Your task to perform on an android device: Open Google Maps and go to "Timeline" Image 0: 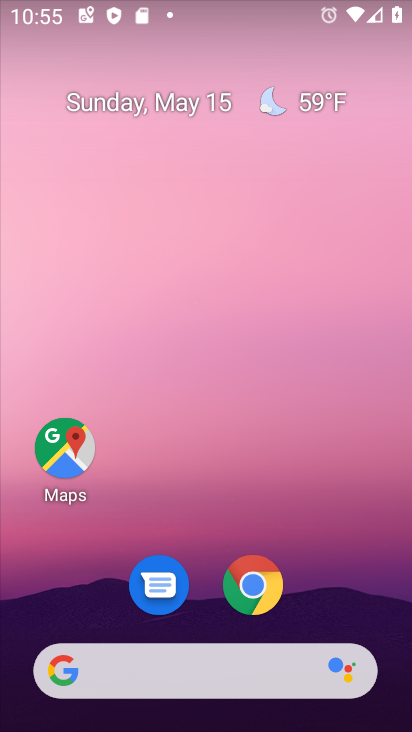
Step 0: click (69, 438)
Your task to perform on an android device: Open Google Maps and go to "Timeline" Image 1: 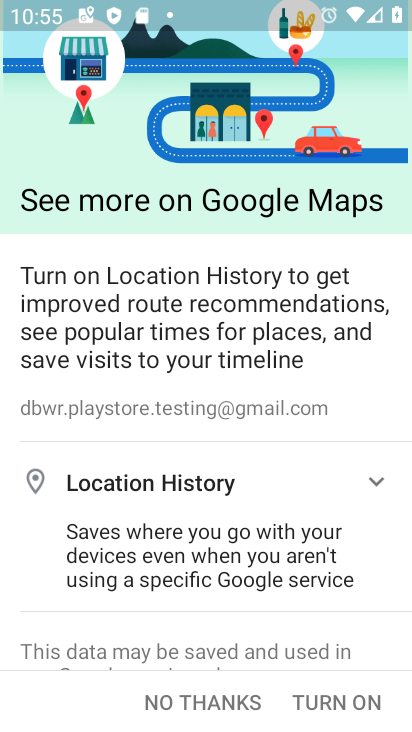
Step 1: click (304, 702)
Your task to perform on an android device: Open Google Maps and go to "Timeline" Image 2: 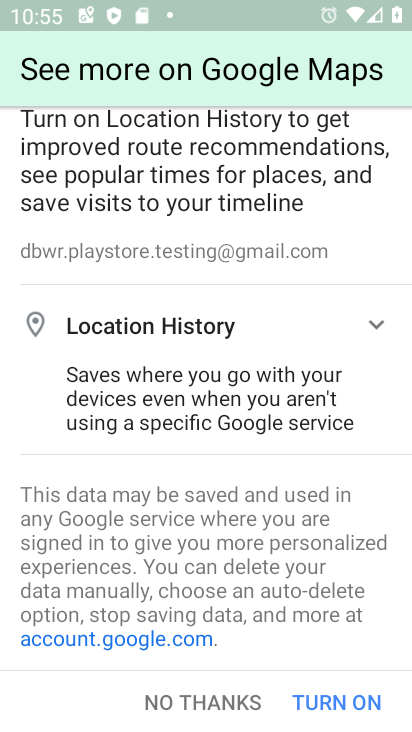
Step 2: click (304, 702)
Your task to perform on an android device: Open Google Maps and go to "Timeline" Image 3: 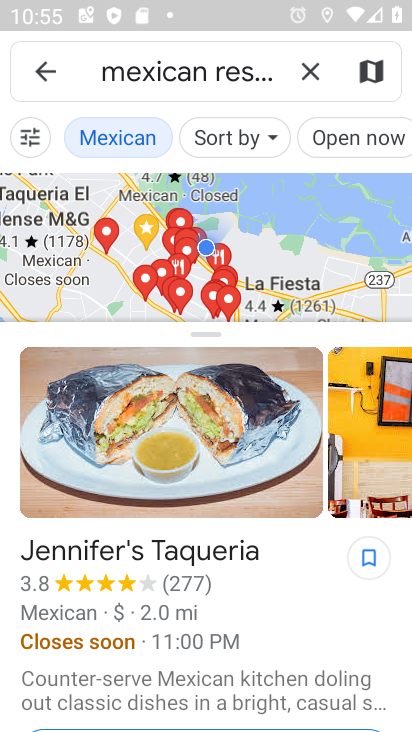
Step 3: click (43, 61)
Your task to perform on an android device: Open Google Maps and go to "Timeline" Image 4: 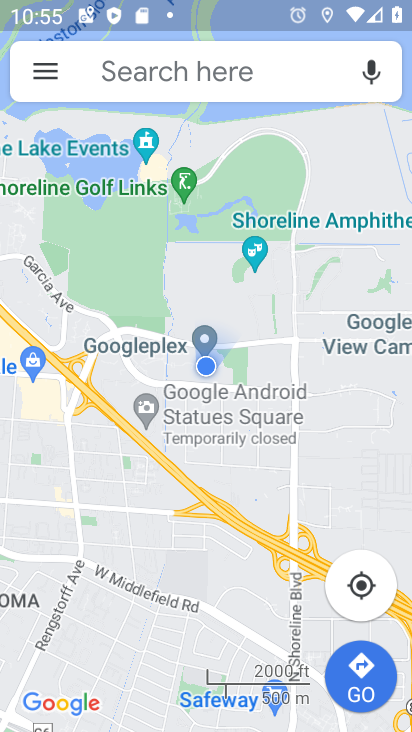
Step 4: click (43, 61)
Your task to perform on an android device: Open Google Maps and go to "Timeline" Image 5: 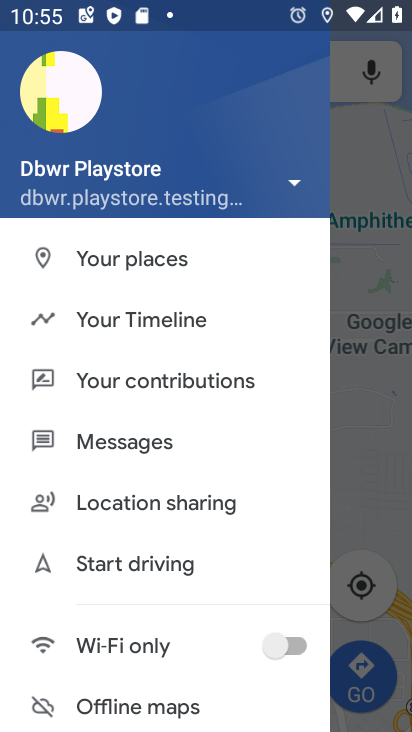
Step 5: click (103, 308)
Your task to perform on an android device: Open Google Maps and go to "Timeline" Image 6: 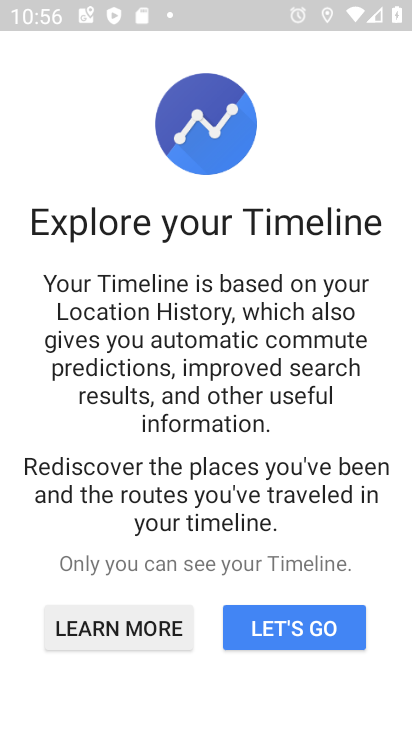
Step 6: click (304, 628)
Your task to perform on an android device: Open Google Maps and go to "Timeline" Image 7: 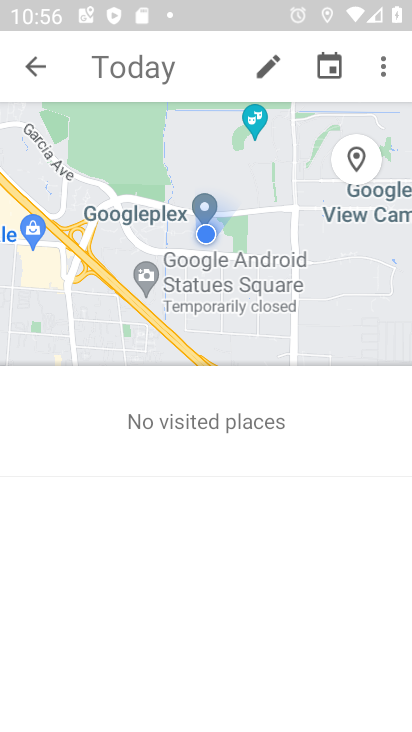
Step 7: task complete